Your task to perform on an android device: turn smart compose on in the gmail app Image 0: 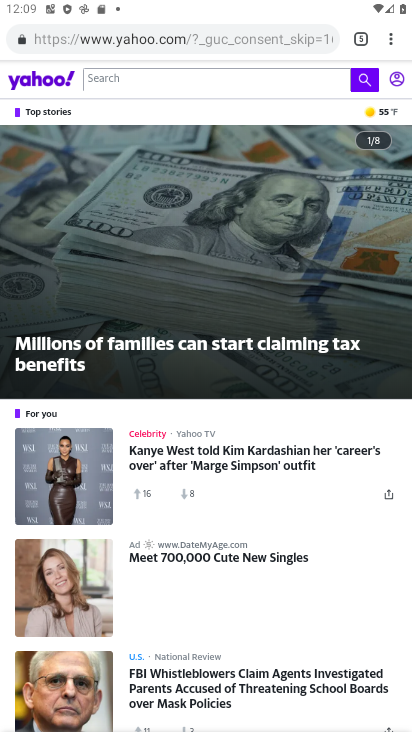
Step 0: press home button
Your task to perform on an android device: turn smart compose on in the gmail app Image 1: 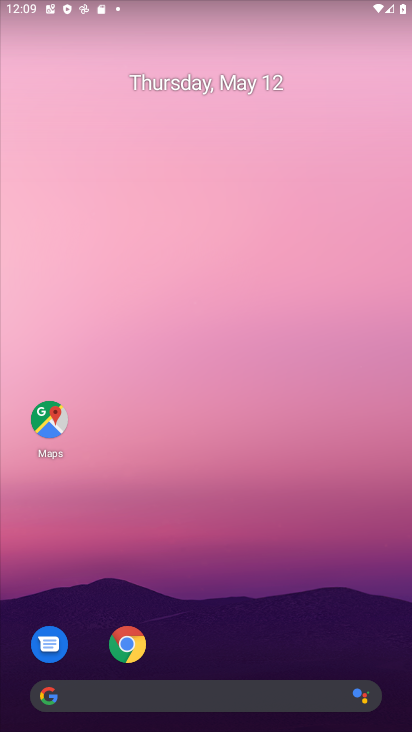
Step 1: drag from (247, 615) to (242, 55)
Your task to perform on an android device: turn smart compose on in the gmail app Image 2: 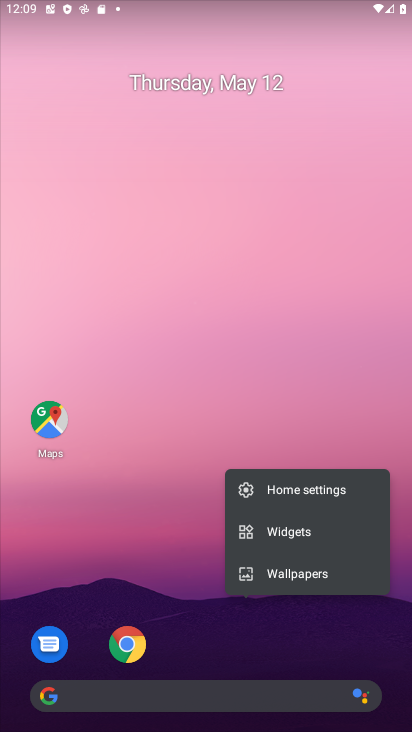
Step 2: click (163, 506)
Your task to perform on an android device: turn smart compose on in the gmail app Image 3: 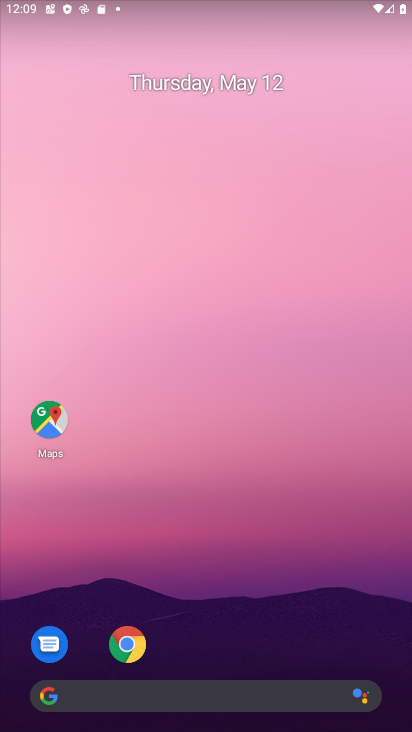
Step 3: drag from (251, 519) to (284, 219)
Your task to perform on an android device: turn smart compose on in the gmail app Image 4: 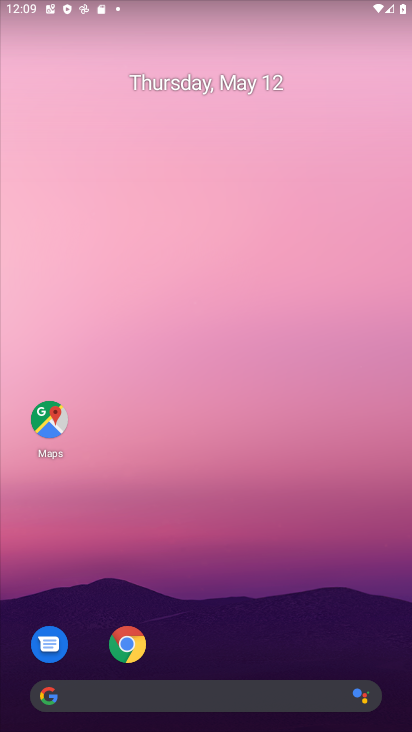
Step 4: drag from (269, 583) to (287, 234)
Your task to perform on an android device: turn smart compose on in the gmail app Image 5: 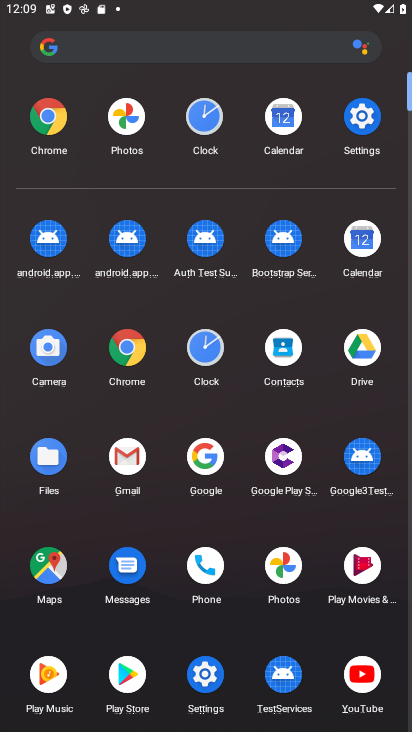
Step 5: click (133, 465)
Your task to perform on an android device: turn smart compose on in the gmail app Image 6: 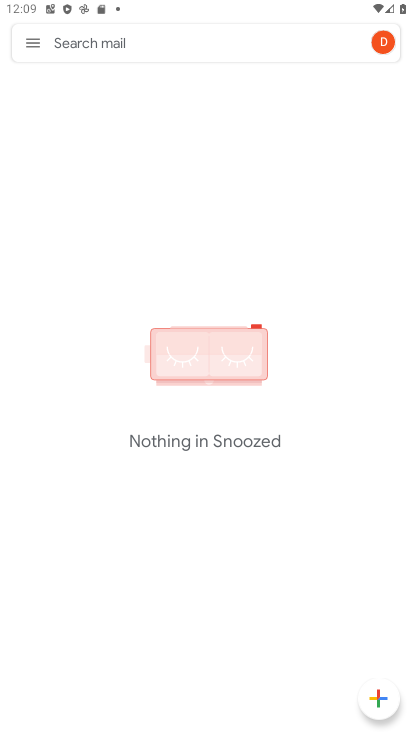
Step 6: click (38, 52)
Your task to perform on an android device: turn smart compose on in the gmail app Image 7: 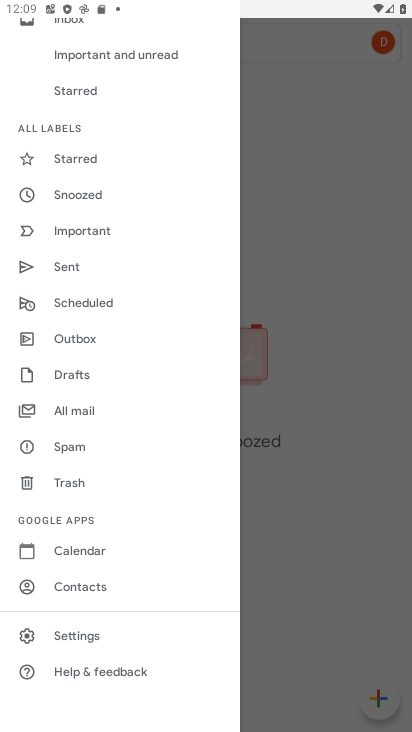
Step 7: click (86, 648)
Your task to perform on an android device: turn smart compose on in the gmail app Image 8: 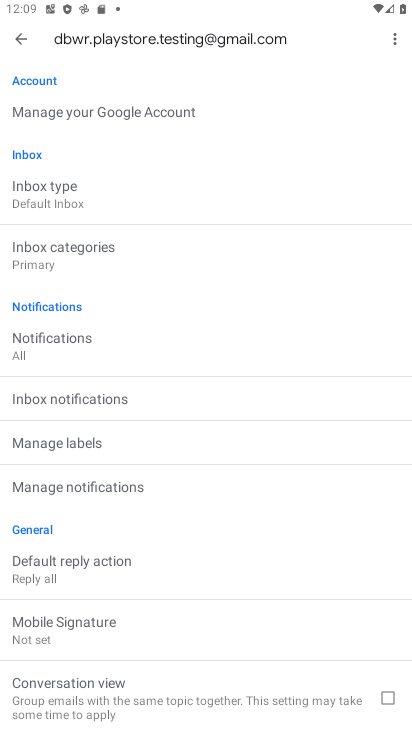
Step 8: task complete